Your task to perform on an android device: toggle data saver in the chrome app Image 0: 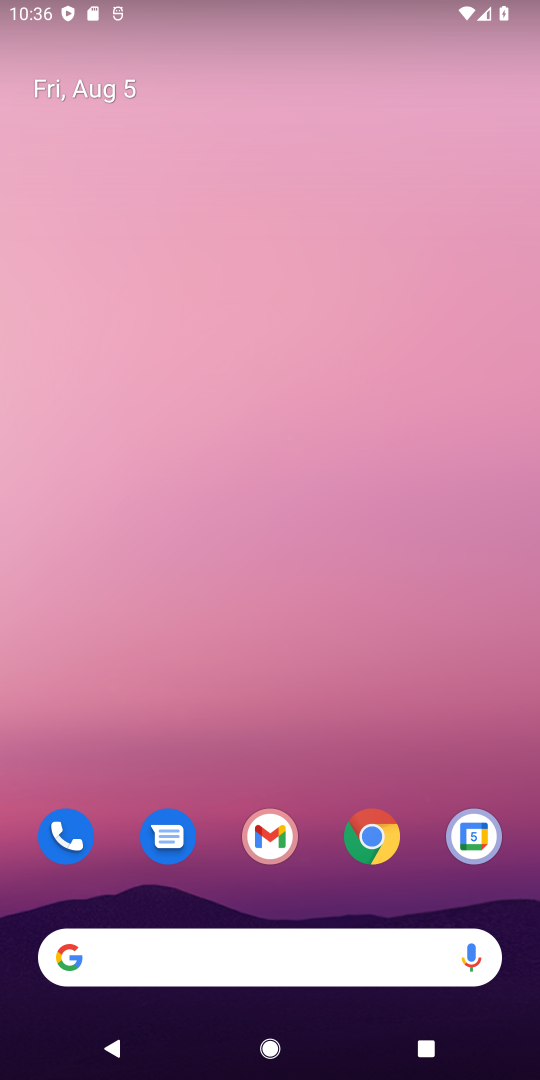
Step 0: drag from (319, 772) to (291, 241)
Your task to perform on an android device: toggle data saver in the chrome app Image 1: 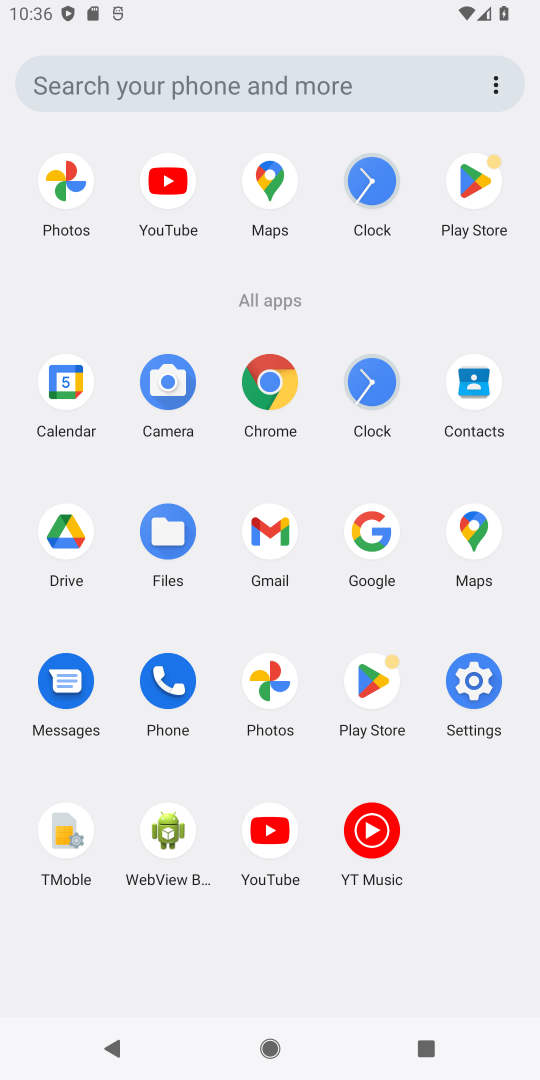
Step 1: click (262, 380)
Your task to perform on an android device: toggle data saver in the chrome app Image 2: 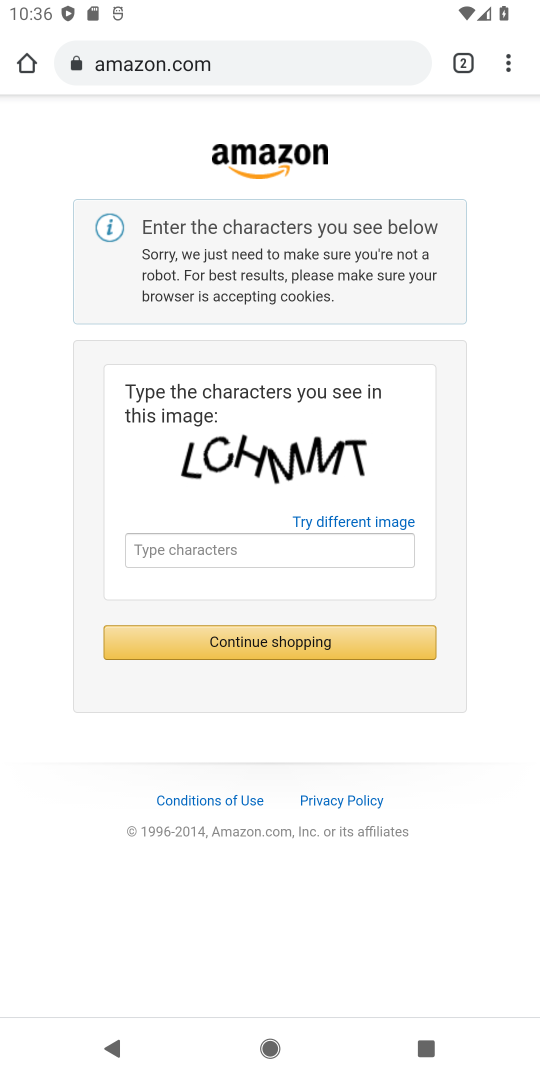
Step 2: drag from (509, 67) to (336, 818)
Your task to perform on an android device: toggle data saver in the chrome app Image 3: 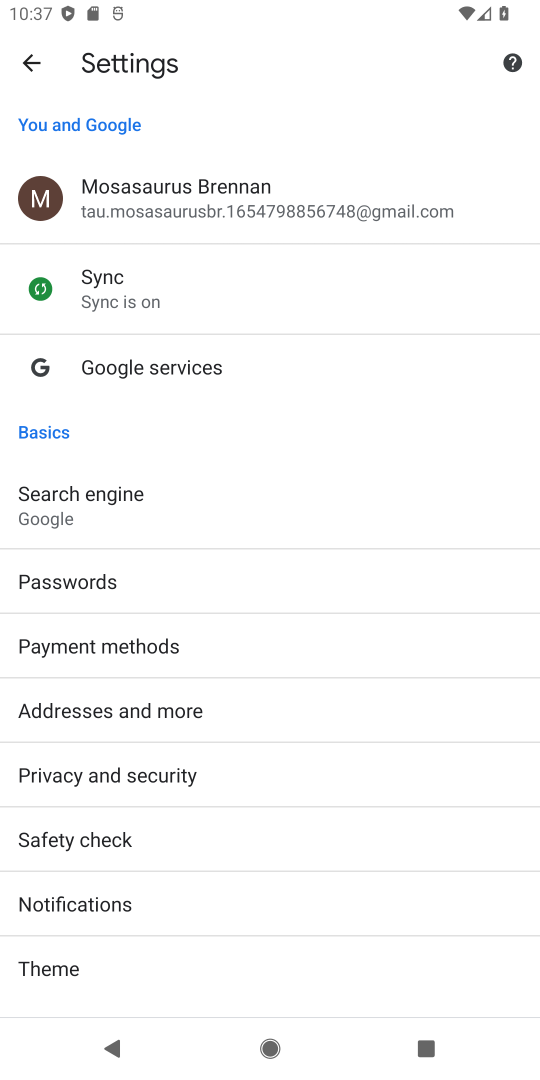
Step 3: drag from (241, 932) to (314, 294)
Your task to perform on an android device: toggle data saver in the chrome app Image 4: 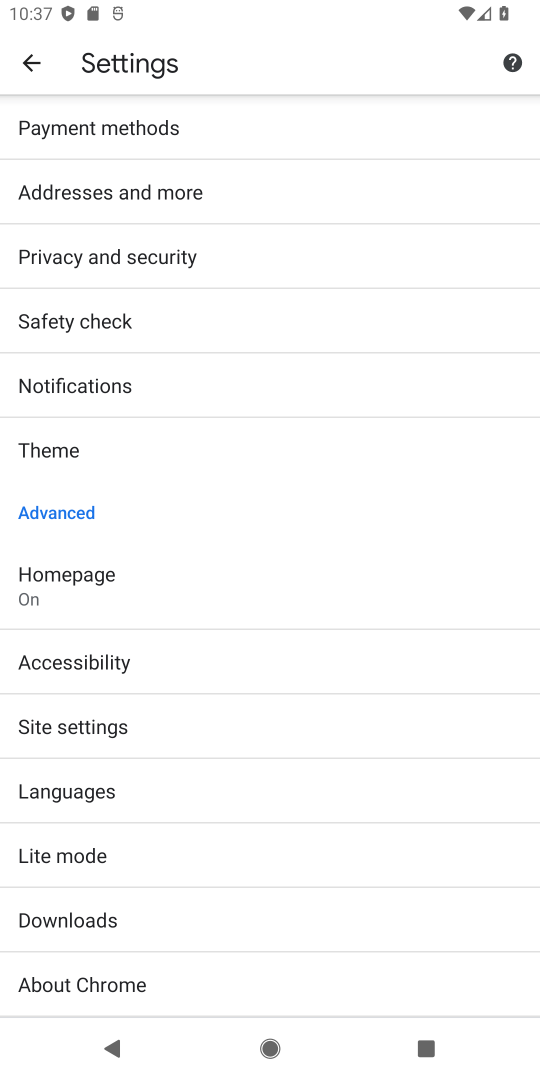
Step 4: click (111, 840)
Your task to perform on an android device: toggle data saver in the chrome app Image 5: 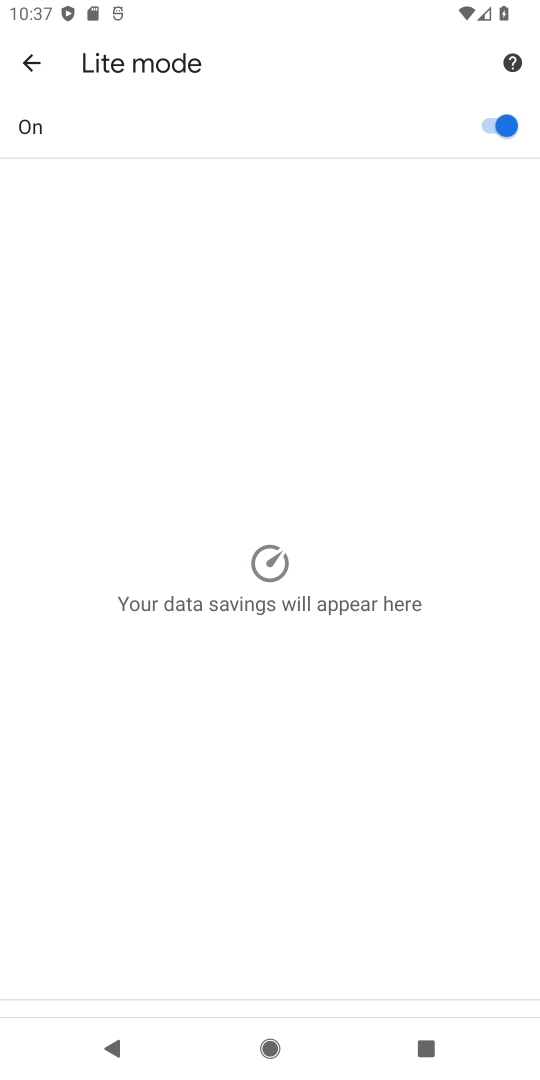
Step 5: click (501, 130)
Your task to perform on an android device: toggle data saver in the chrome app Image 6: 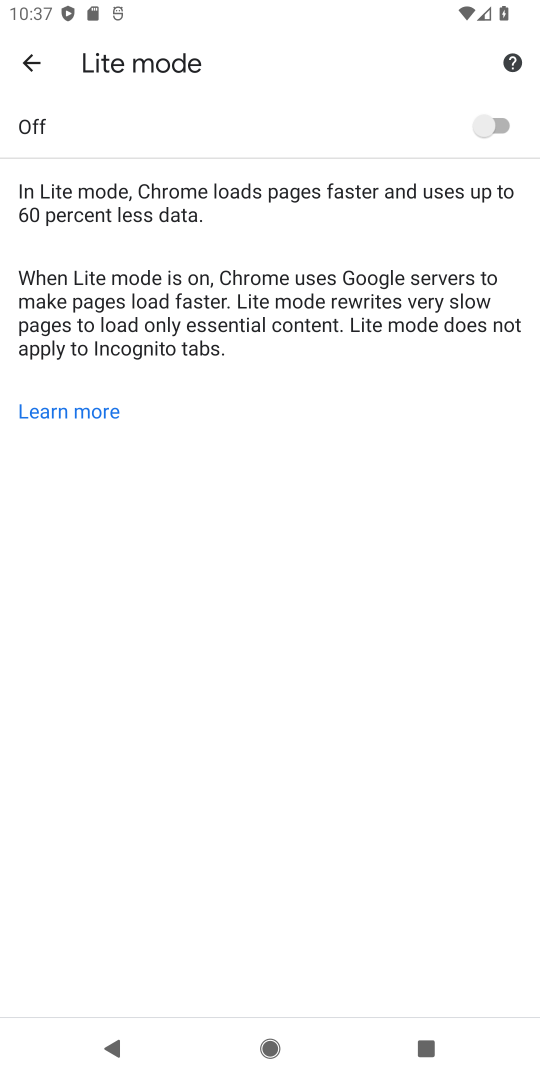
Step 6: task complete